Your task to perform on an android device: Open Google Chrome and open the bookmarks view Image 0: 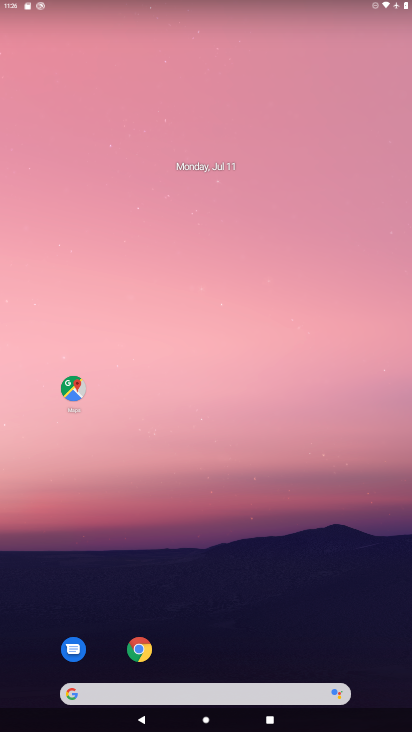
Step 0: drag from (261, 648) to (247, 121)
Your task to perform on an android device: Open Google Chrome and open the bookmarks view Image 1: 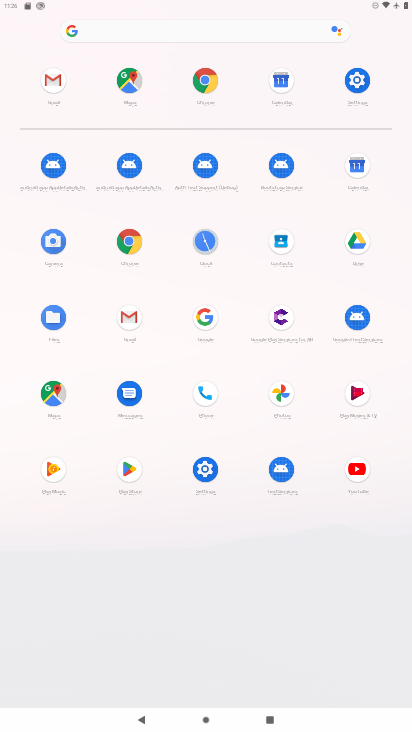
Step 1: click (205, 81)
Your task to perform on an android device: Open Google Chrome and open the bookmarks view Image 2: 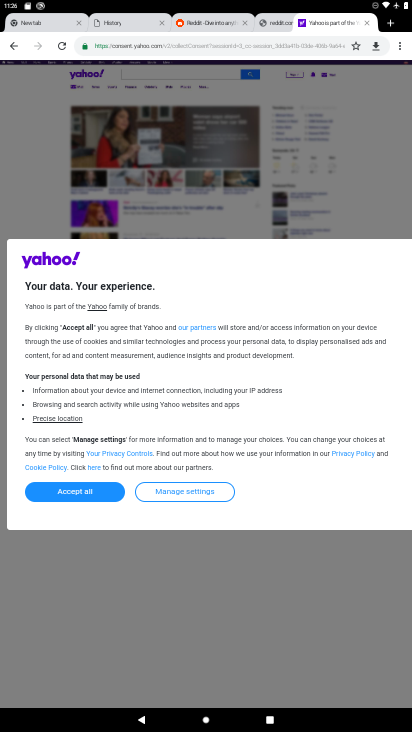
Step 2: task complete